Your task to perform on an android device: turn off location history Image 0: 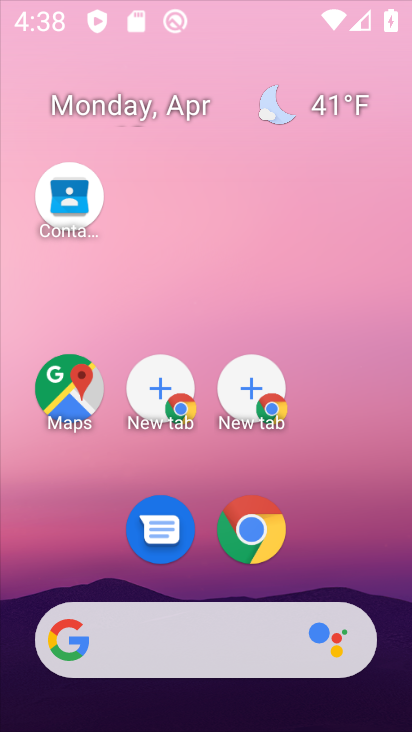
Step 0: drag from (210, 563) to (304, 25)
Your task to perform on an android device: turn off location history Image 1: 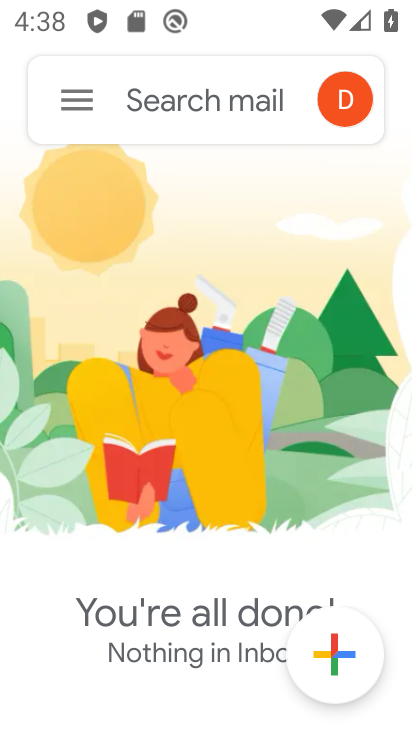
Step 1: press home button
Your task to perform on an android device: turn off location history Image 2: 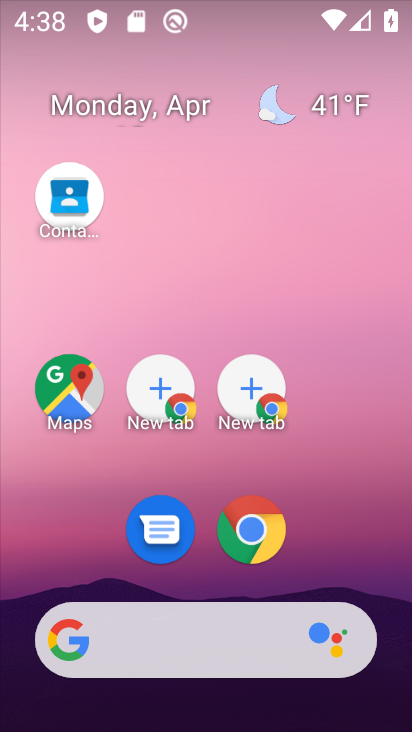
Step 2: drag from (116, 520) to (208, 20)
Your task to perform on an android device: turn off location history Image 3: 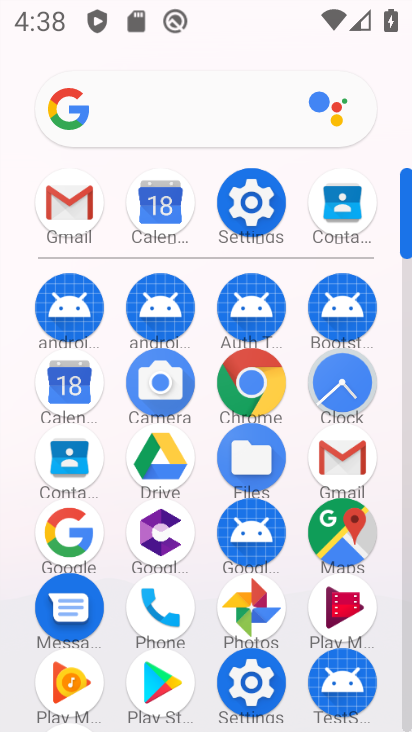
Step 3: click (252, 193)
Your task to perform on an android device: turn off location history Image 4: 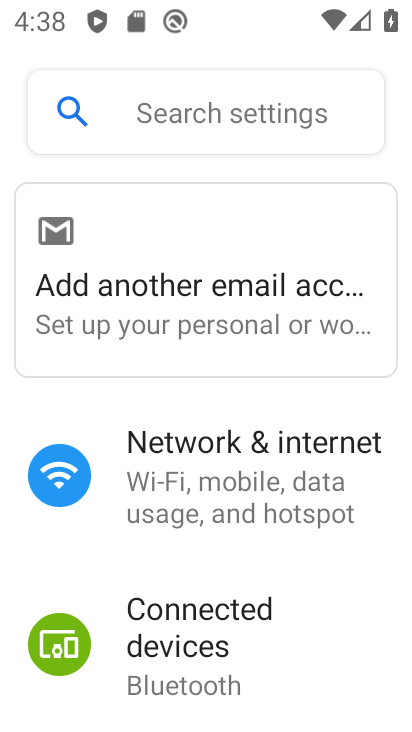
Step 4: drag from (224, 587) to (312, 30)
Your task to perform on an android device: turn off location history Image 5: 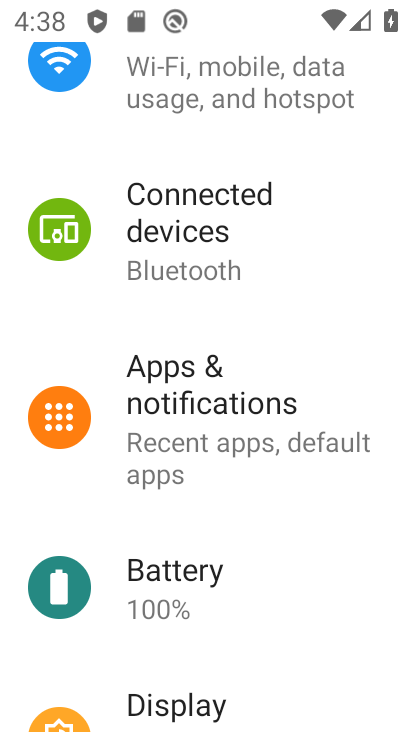
Step 5: drag from (170, 628) to (278, 45)
Your task to perform on an android device: turn off location history Image 6: 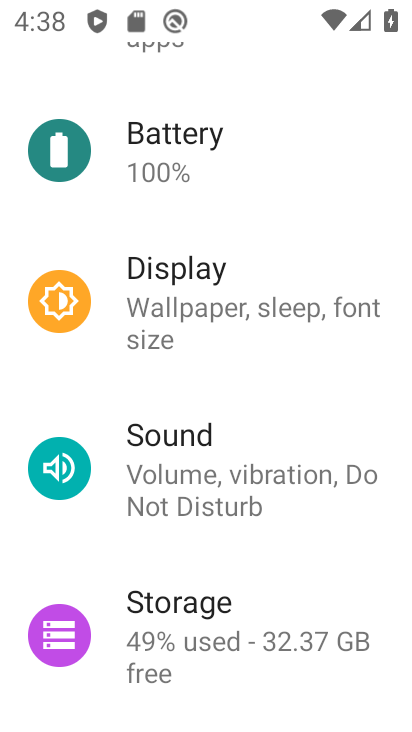
Step 6: drag from (146, 535) to (264, 47)
Your task to perform on an android device: turn off location history Image 7: 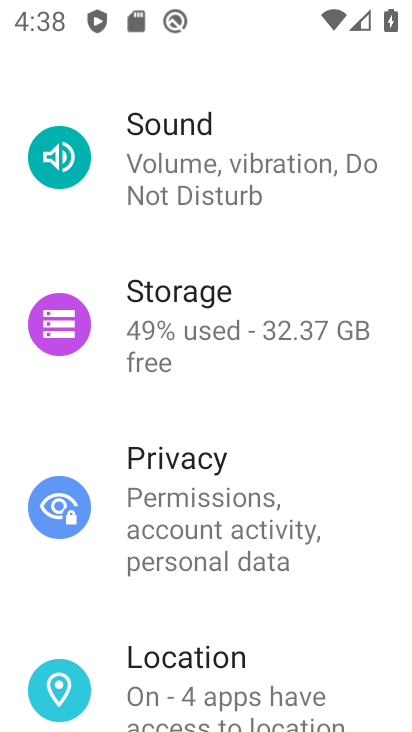
Step 7: click (213, 671)
Your task to perform on an android device: turn off location history Image 8: 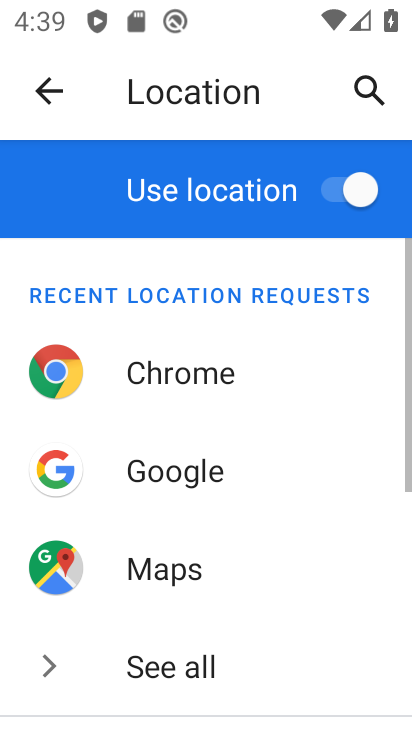
Step 8: drag from (193, 629) to (262, 149)
Your task to perform on an android device: turn off location history Image 9: 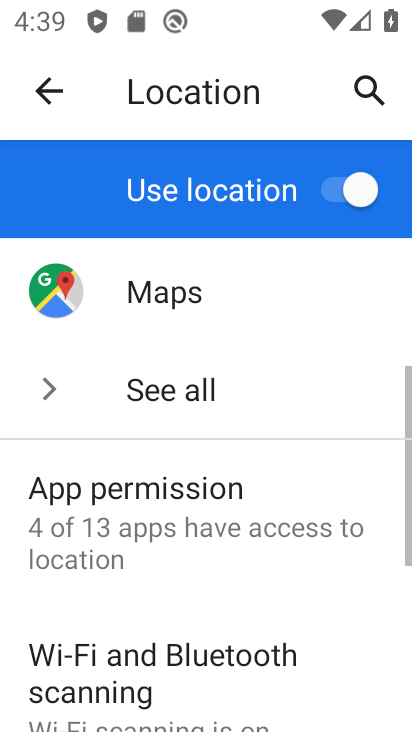
Step 9: drag from (149, 639) to (236, 171)
Your task to perform on an android device: turn off location history Image 10: 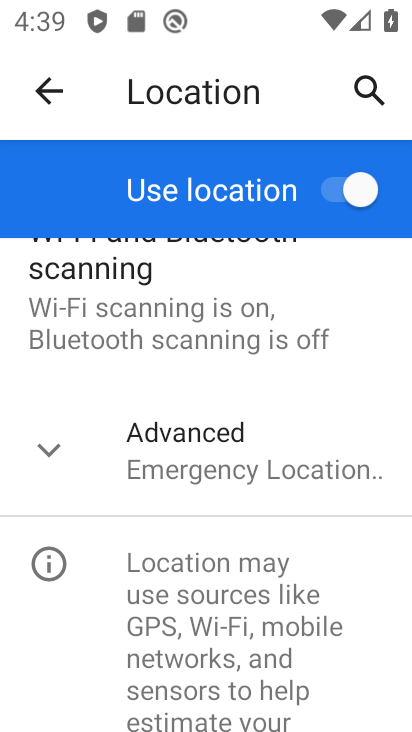
Step 10: click (177, 453)
Your task to perform on an android device: turn off location history Image 11: 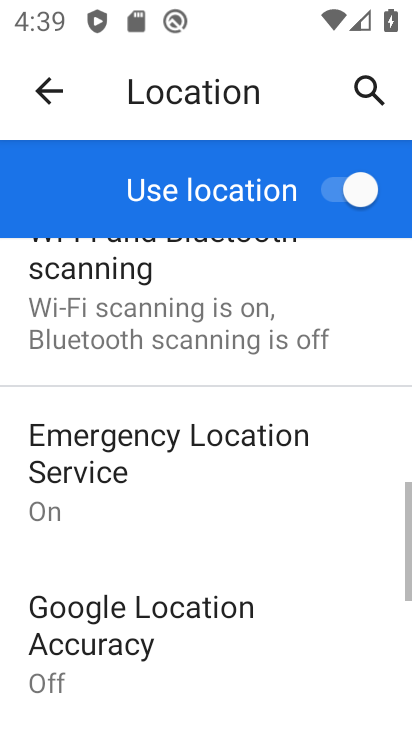
Step 11: drag from (160, 634) to (286, 144)
Your task to perform on an android device: turn off location history Image 12: 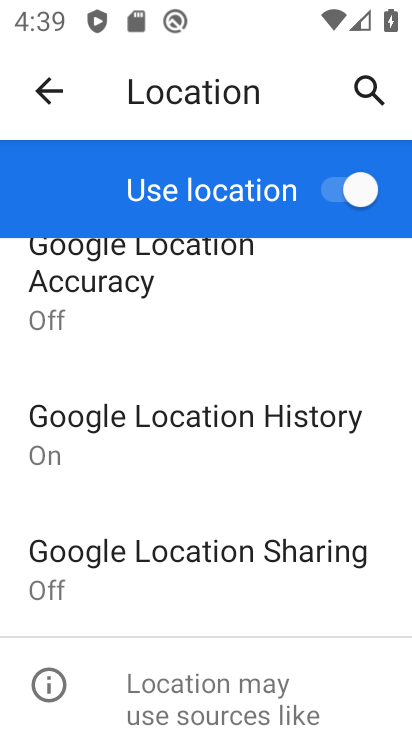
Step 12: click (119, 419)
Your task to perform on an android device: turn off location history Image 13: 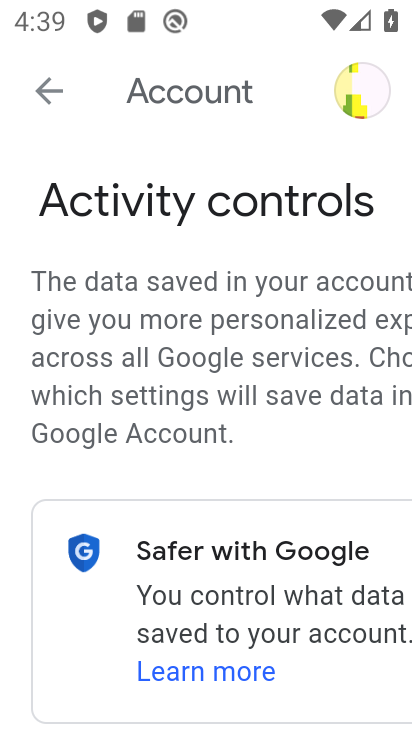
Step 13: drag from (188, 561) to (294, 33)
Your task to perform on an android device: turn off location history Image 14: 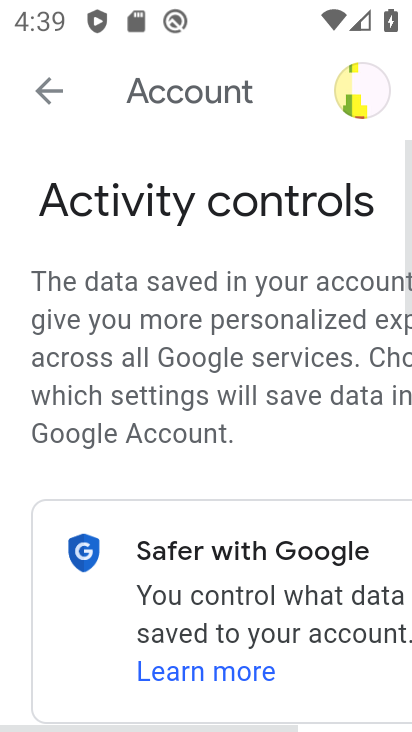
Step 14: drag from (251, 528) to (286, 55)
Your task to perform on an android device: turn off location history Image 15: 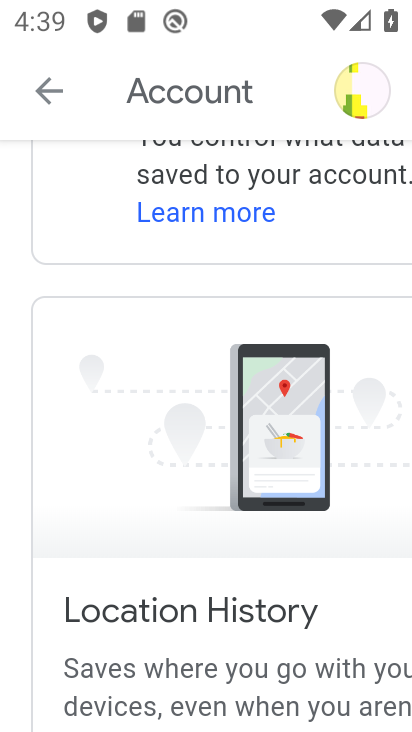
Step 15: drag from (215, 554) to (327, 74)
Your task to perform on an android device: turn off location history Image 16: 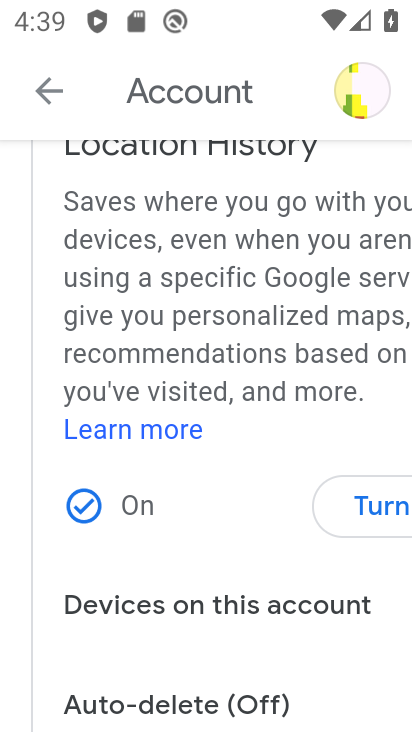
Step 16: click (368, 505)
Your task to perform on an android device: turn off location history Image 17: 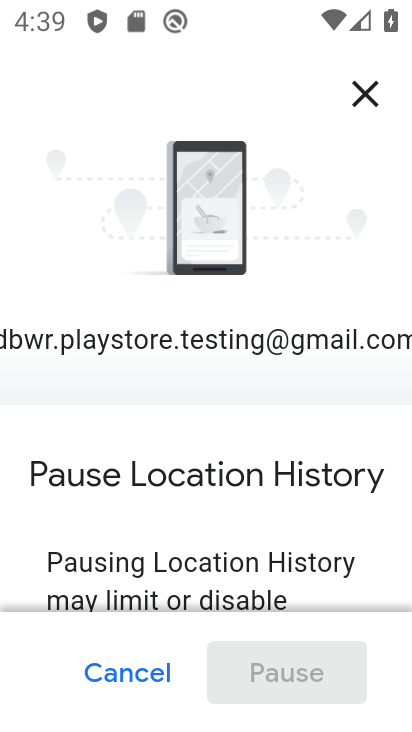
Step 17: drag from (151, 559) to (288, 56)
Your task to perform on an android device: turn off location history Image 18: 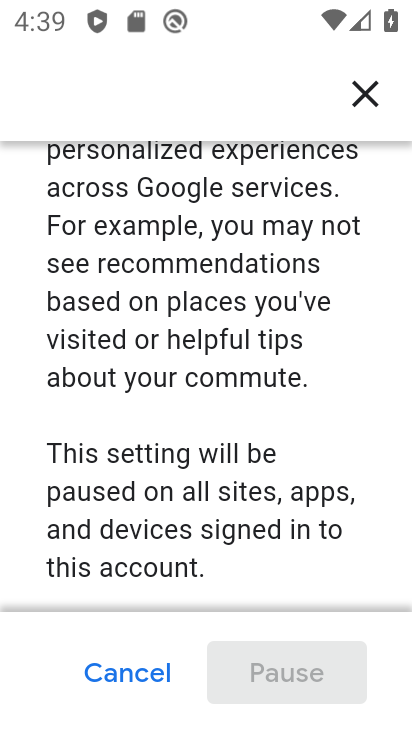
Step 18: drag from (206, 519) to (236, 102)
Your task to perform on an android device: turn off location history Image 19: 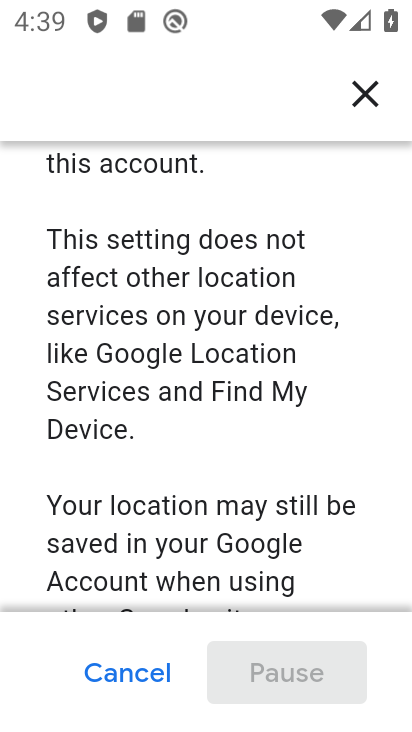
Step 19: drag from (244, 525) to (334, 0)
Your task to perform on an android device: turn off location history Image 20: 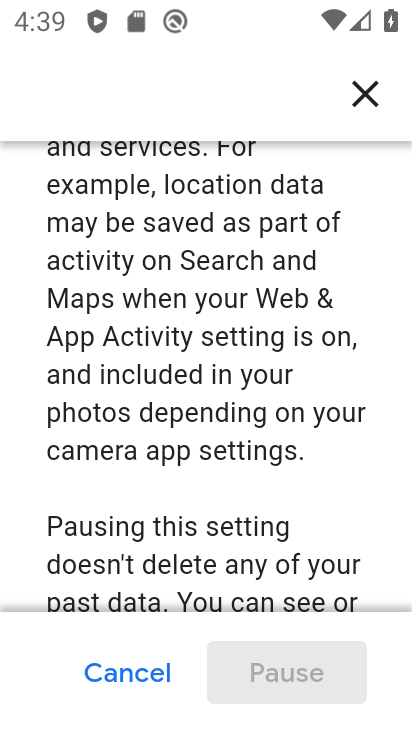
Step 20: drag from (215, 564) to (288, 28)
Your task to perform on an android device: turn off location history Image 21: 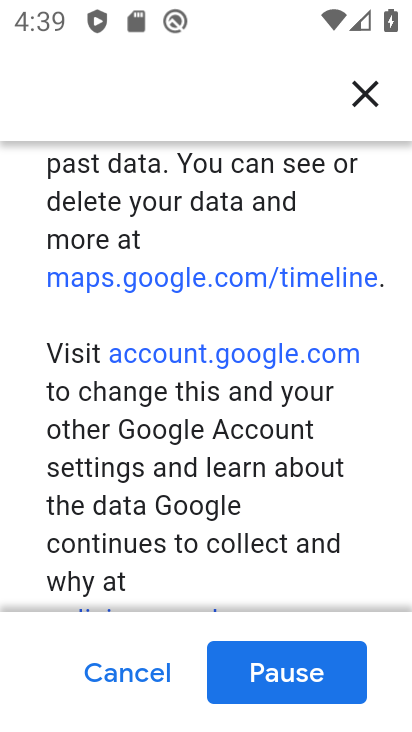
Step 21: click (278, 680)
Your task to perform on an android device: turn off location history Image 22: 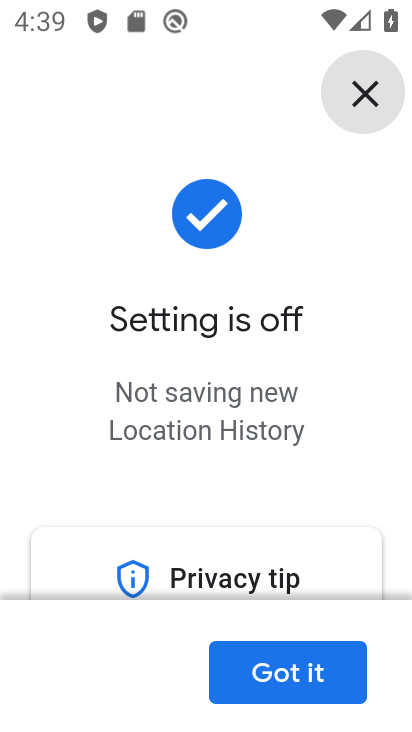
Step 22: click (266, 665)
Your task to perform on an android device: turn off location history Image 23: 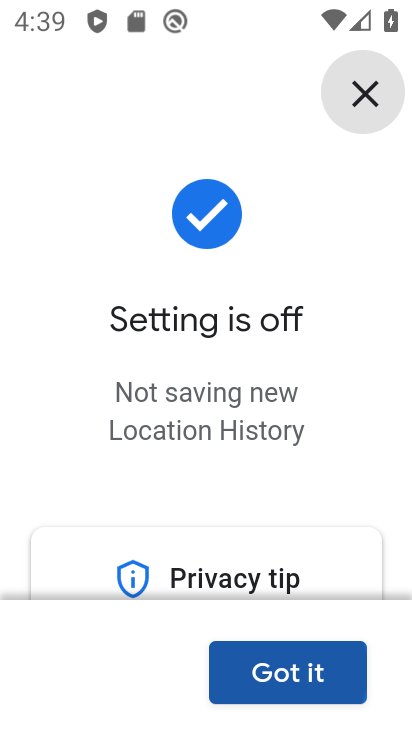
Step 23: task complete